Your task to perform on an android device: turn off notifications settings in the gmail app Image 0: 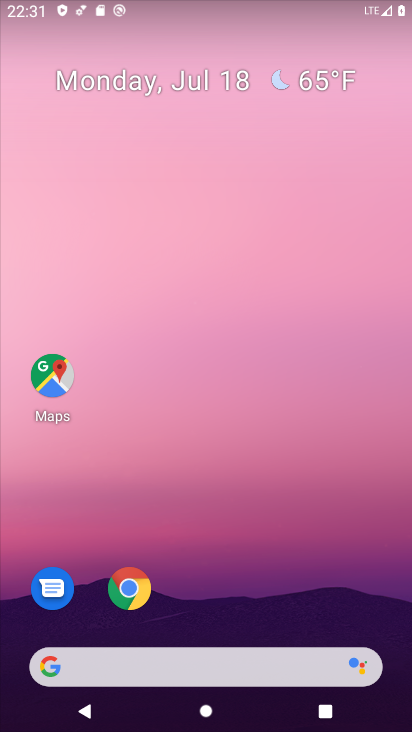
Step 0: drag from (284, 580) to (300, 136)
Your task to perform on an android device: turn off notifications settings in the gmail app Image 1: 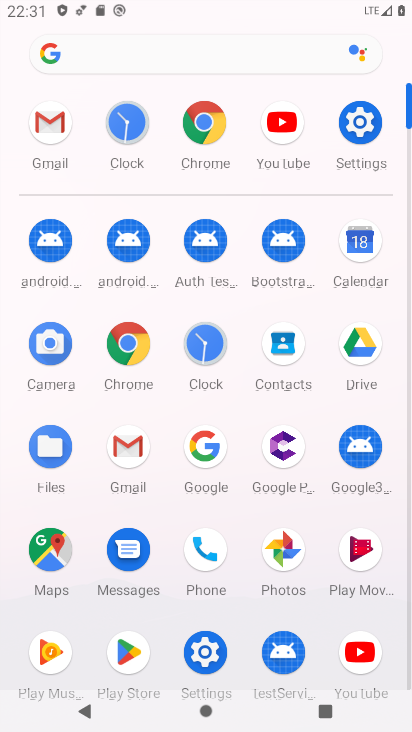
Step 1: click (40, 122)
Your task to perform on an android device: turn off notifications settings in the gmail app Image 2: 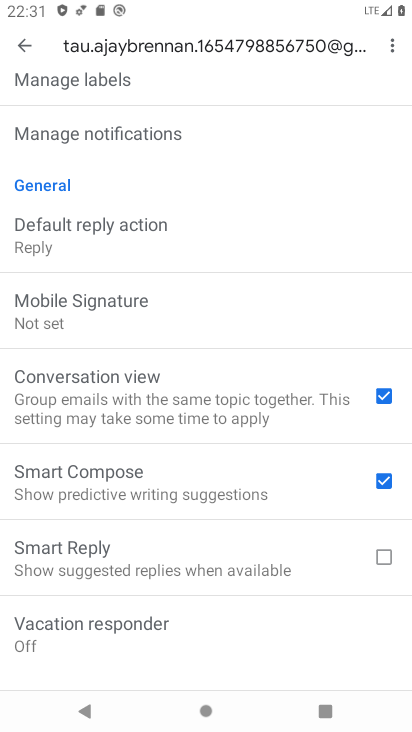
Step 2: click (389, 38)
Your task to perform on an android device: turn off notifications settings in the gmail app Image 3: 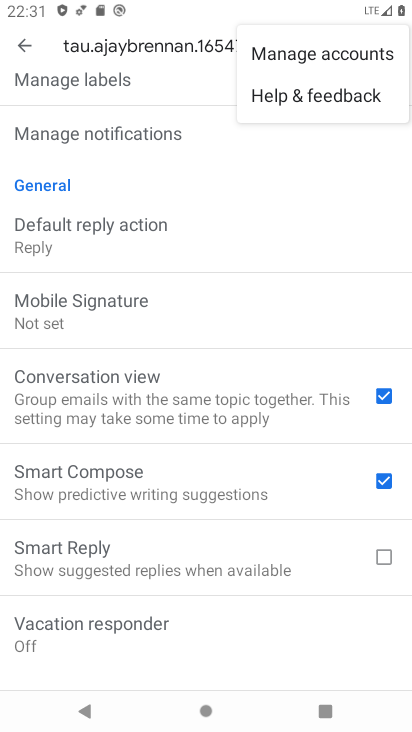
Step 3: click (54, 136)
Your task to perform on an android device: turn off notifications settings in the gmail app Image 4: 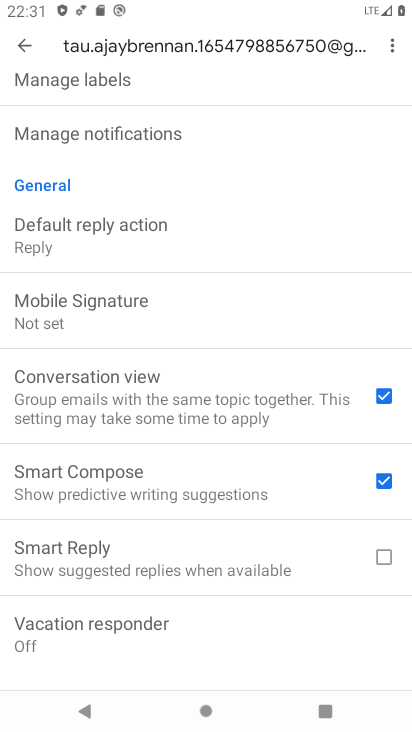
Step 4: click (53, 127)
Your task to perform on an android device: turn off notifications settings in the gmail app Image 5: 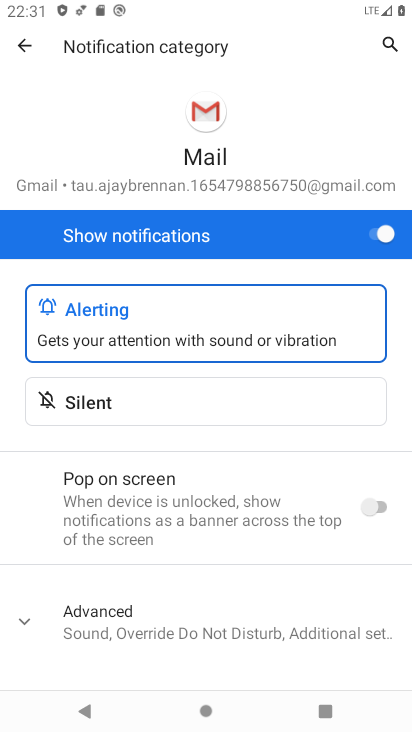
Step 5: click (376, 230)
Your task to perform on an android device: turn off notifications settings in the gmail app Image 6: 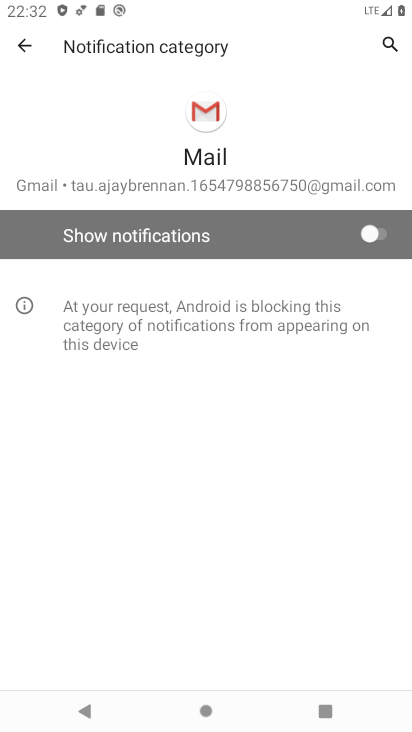
Step 6: task complete